Your task to perform on an android device: Check the weather Image 0: 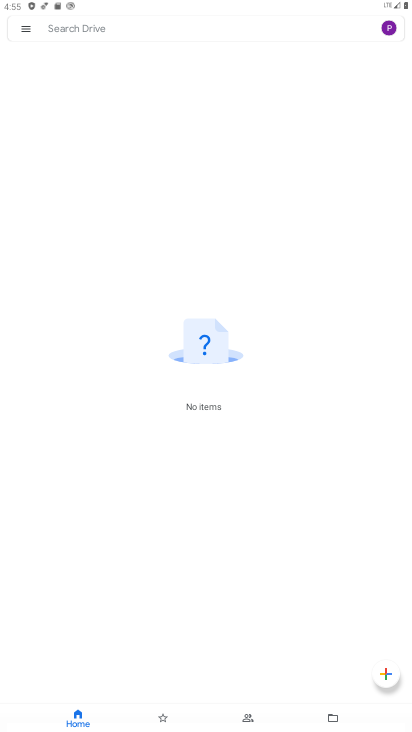
Step 0: press home button
Your task to perform on an android device: Check the weather Image 1: 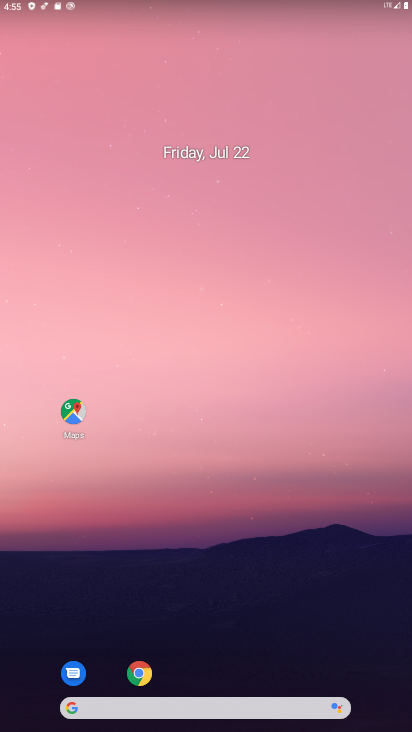
Step 1: click (69, 712)
Your task to perform on an android device: Check the weather Image 2: 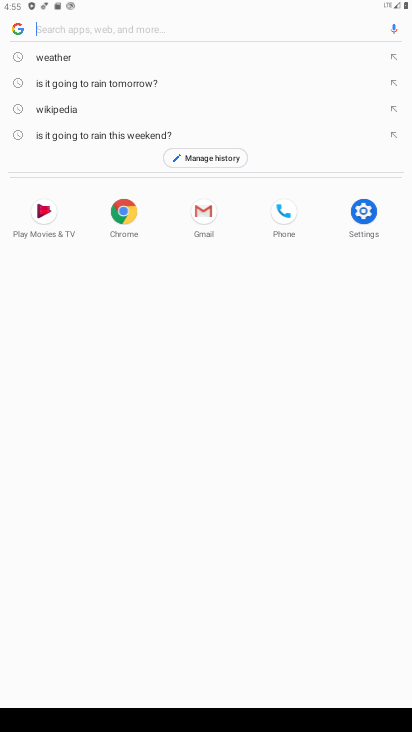
Step 2: click (44, 58)
Your task to perform on an android device: Check the weather Image 3: 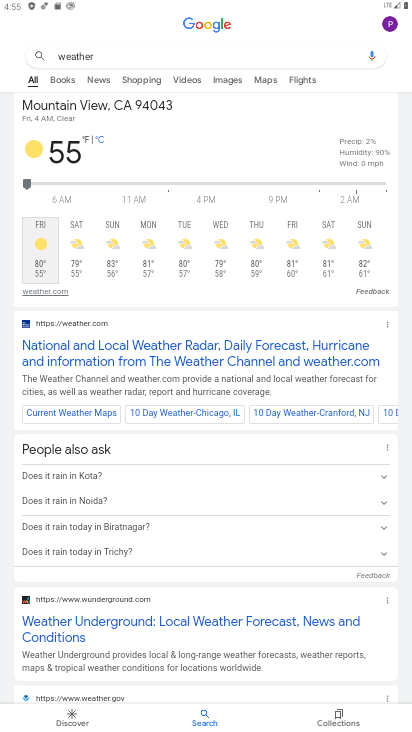
Step 3: task complete